Your task to perform on an android device: When is my next appointment? Image 0: 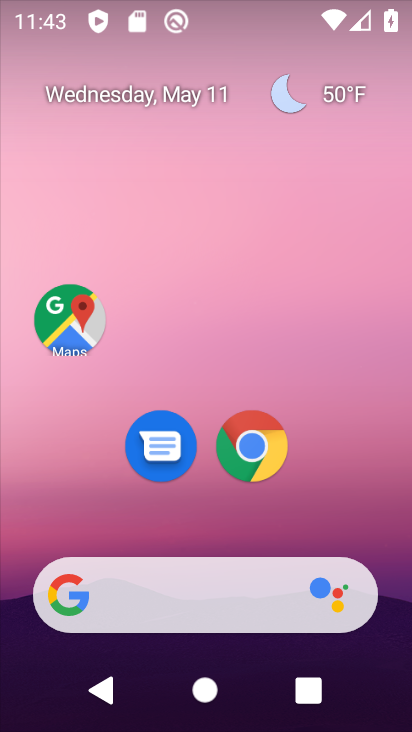
Step 0: drag from (355, 501) to (367, 165)
Your task to perform on an android device: When is my next appointment? Image 1: 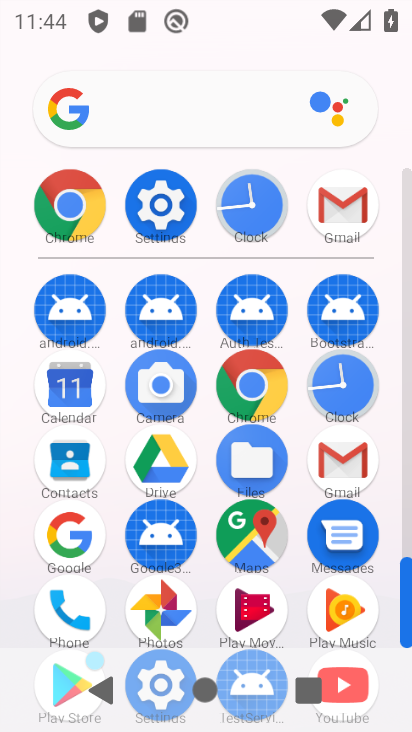
Step 1: click (59, 375)
Your task to perform on an android device: When is my next appointment? Image 2: 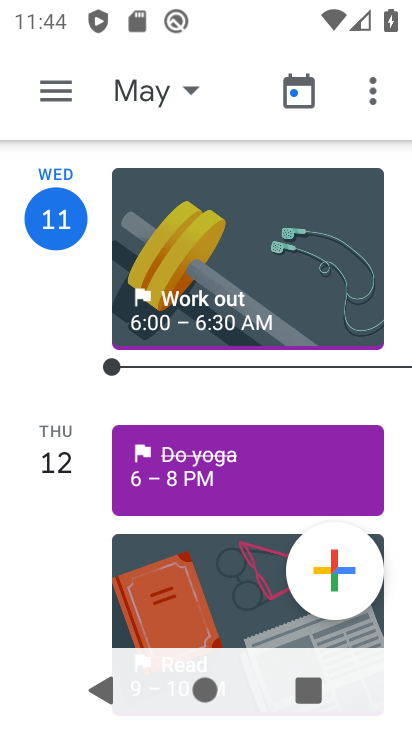
Step 2: task complete